Your task to perform on an android device: remove spam from my inbox in the gmail app Image 0: 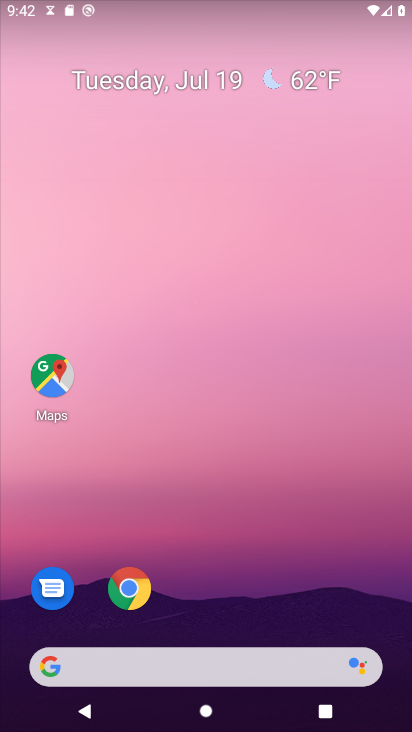
Step 0: drag from (199, 573) to (219, 273)
Your task to perform on an android device: remove spam from my inbox in the gmail app Image 1: 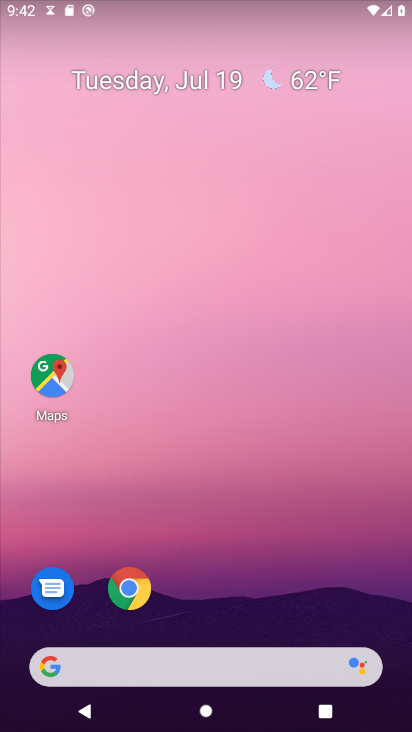
Step 1: drag from (210, 313) to (245, 95)
Your task to perform on an android device: remove spam from my inbox in the gmail app Image 2: 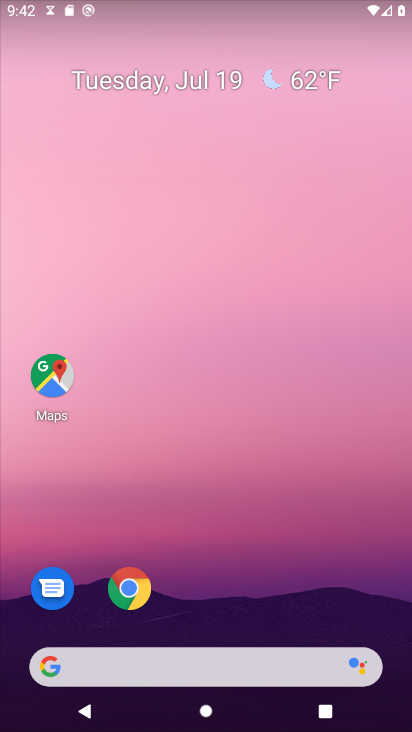
Step 2: drag from (197, 592) to (237, 104)
Your task to perform on an android device: remove spam from my inbox in the gmail app Image 3: 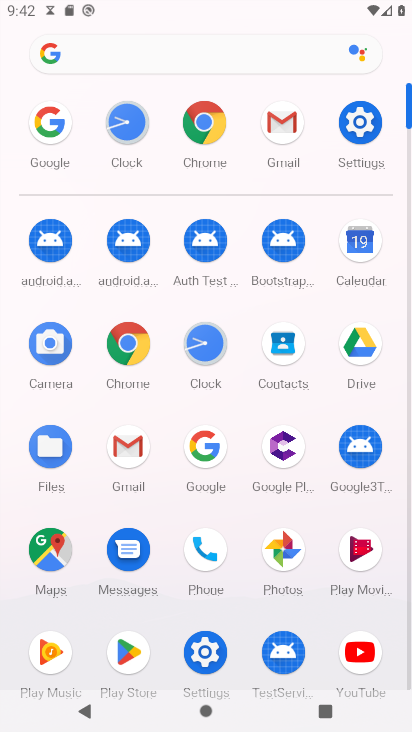
Step 3: click (285, 137)
Your task to perform on an android device: remove spam from my inbox in the gmail app Image 4: 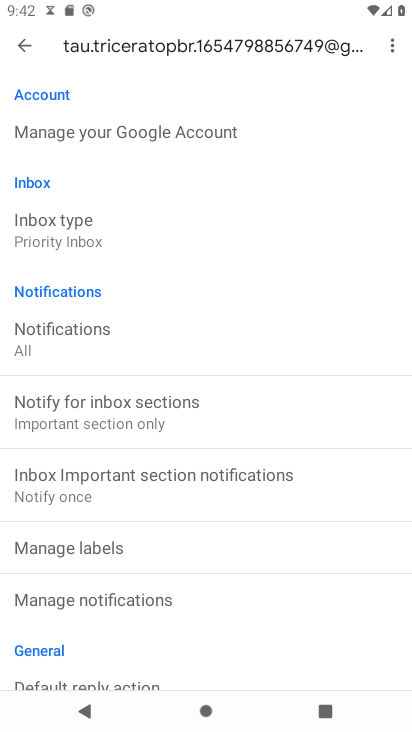
Step 4: click (33, 42)
Your task to perform on an android device: remove spam from my inbox in the gmail app Image 5: 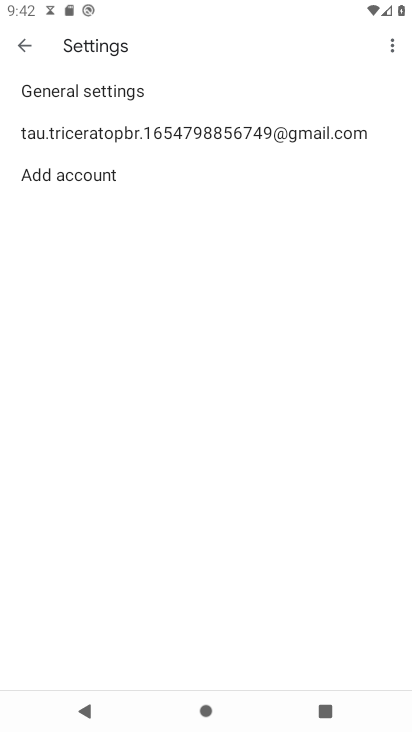
Step 5: click (33, 42)
Your task to perform on an android device: remove spam from my inbox in the gmail app Image 6: 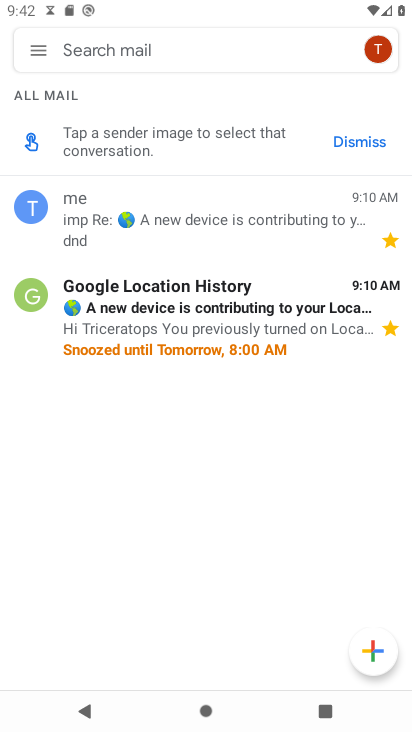
Step 6: click (33, 42)
Your task to perform on an android device: remove spam from my inbox in the gmail app Image 7: 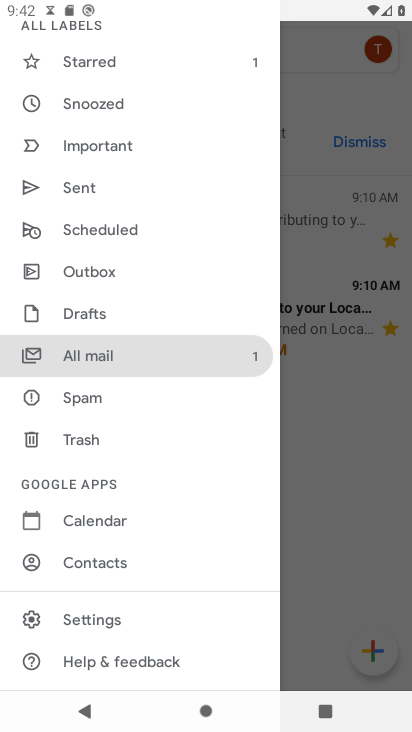
Step 7: click (74, 396)
Your task to perform on an android device: remove spam from my inbox in the gmail app Image 8: 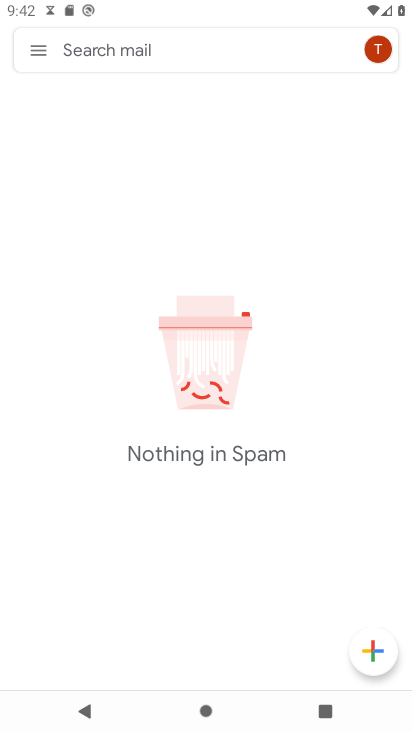
Step 8: task complete